Your task to perform on an android device: choose inbox layout in the gmail app Image 0: 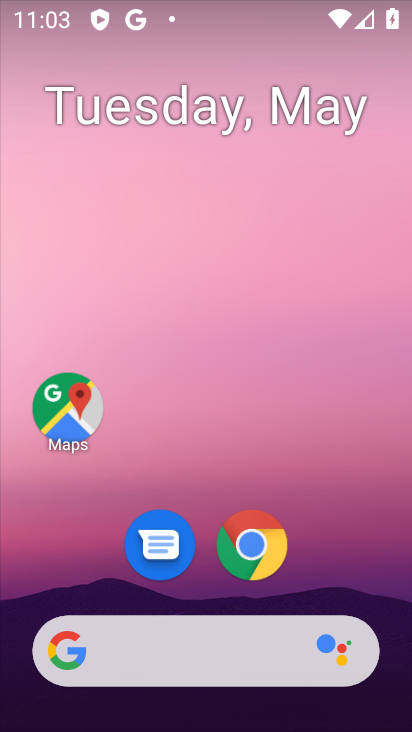
Step 0: drag from (396, 532) to (317, 195)
Your task to perform on an android device: choose inbox layout in the gmail app Image 1: 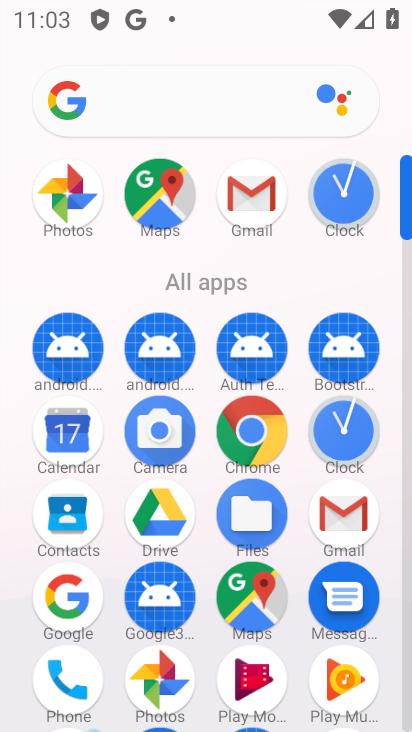
Step 1: click (341, 540)
Your task to perform on an android device: choose inbox layout in the gmail app Image 2: 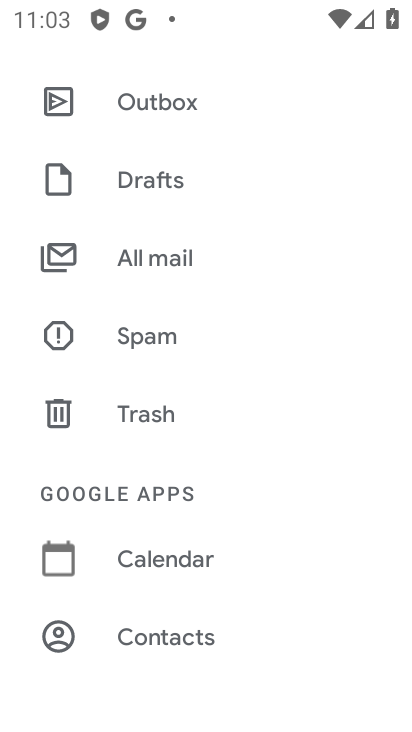
Step 2: drag from (216, 641) to (271, 267)
Your task to perform on an android device: choose inbox layout in the gmail app Image 3: 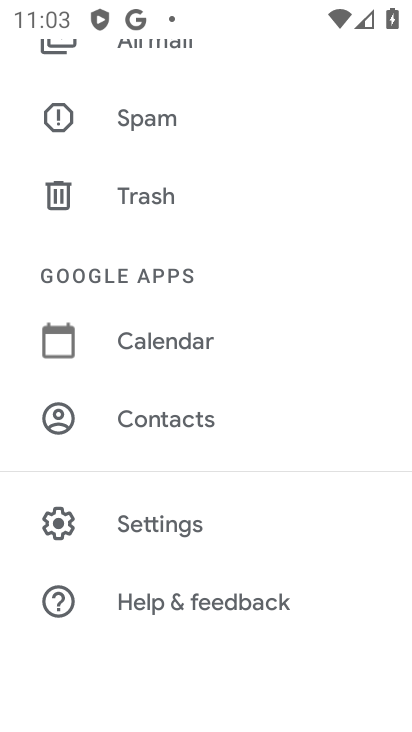
Step 3: click (189, 522)
Your task to perform on an android device: choose inbox layout in the gmail app Image 4: 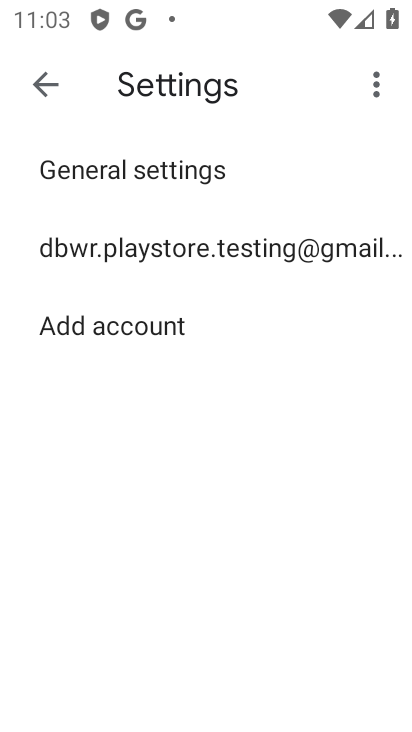
Step 4: click (231, 242)
Your task to perform on an android device: choose inbox layout in the gmail app Image 5: 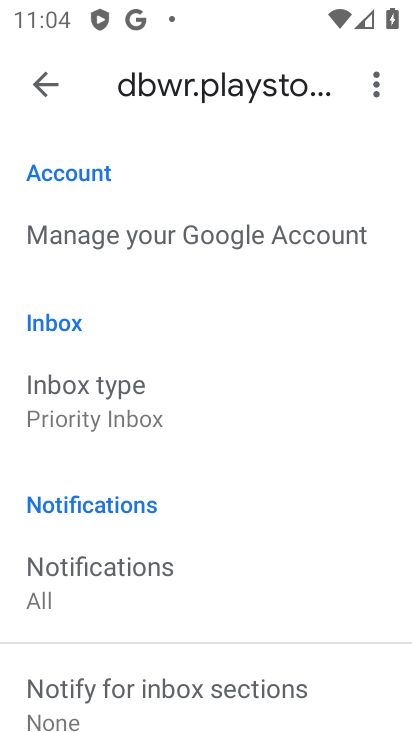
Step 5: drag from (195, 608) to (221, 333)
Your task to perform on an android device: choose inbox layout in the gmail app Image 6: 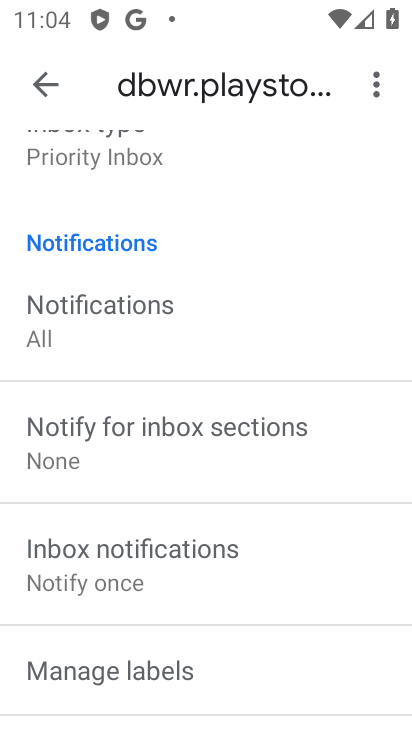
Step 6: drag from (281, 650) to (277, 364)
Your task to perform on an android device: choose inbox layout in the gmail app Image 7: 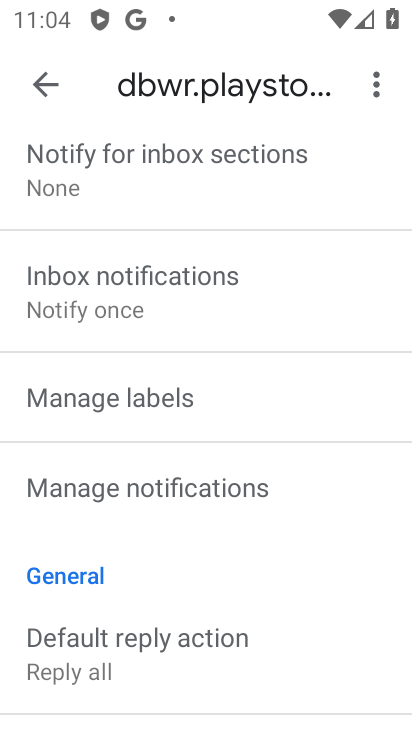
Step 7: drag from (278, 238) to (282, 536)
Your task to perform on an android device: choose inbox layout in the gmail app Image 8: 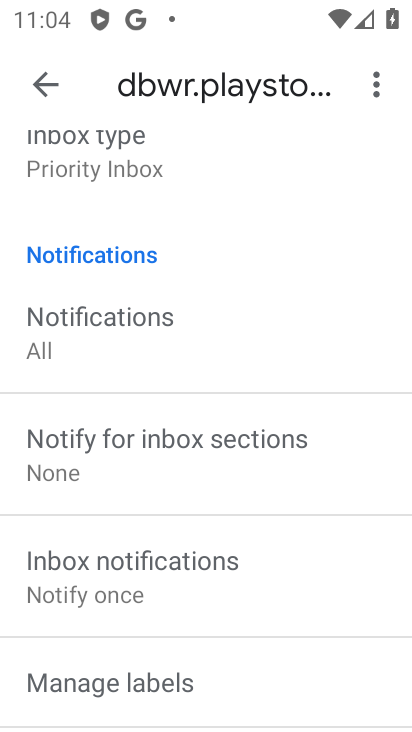
Step 8: click (132, 159)
Your task to perform on an android device: choose inbox layout in the gmail app Image 9: 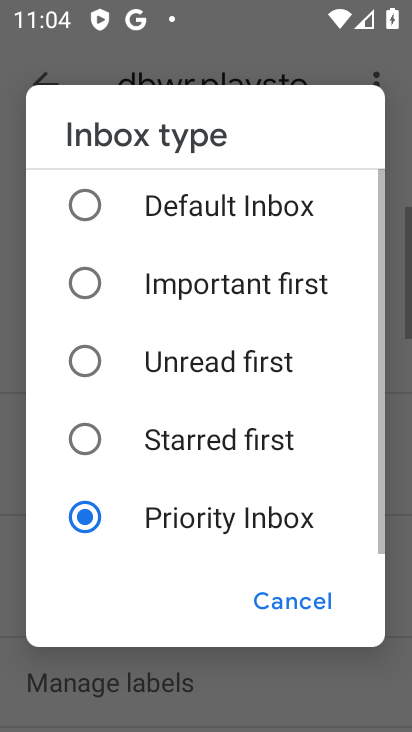
Step 9: click (94, 280)
Your task to perform on an android device: choose inbox layout in the gmail app Image 10: 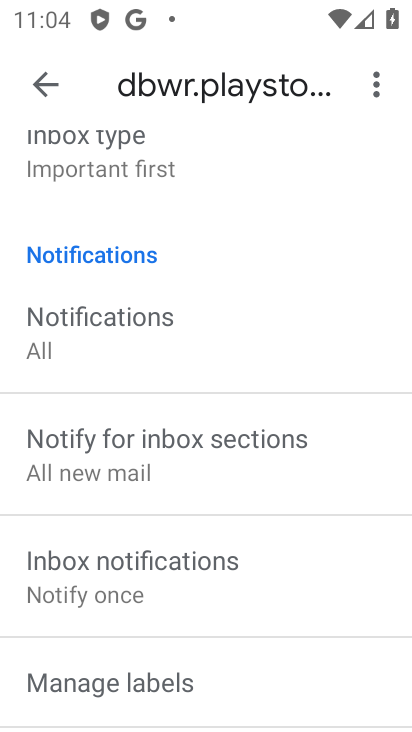
Step 10: task complete